Your task to perform on an android device: Open Google Chrome Image 0: 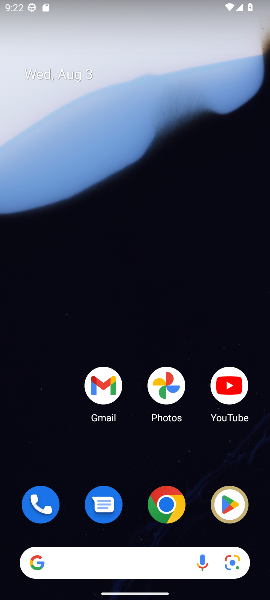
Step 0: click (163, 499)
Your task to perform on an android device: Open Google Chrome Image 1: 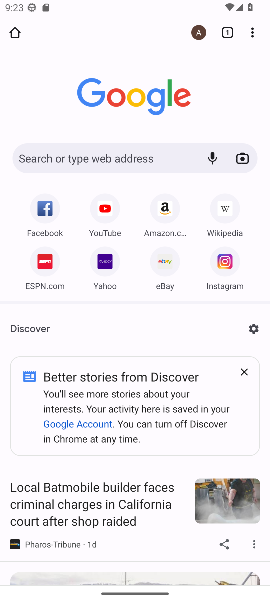
Step 1: task complete